Your task to perform on an android device: visit the assistant section in the google photos Image 0: 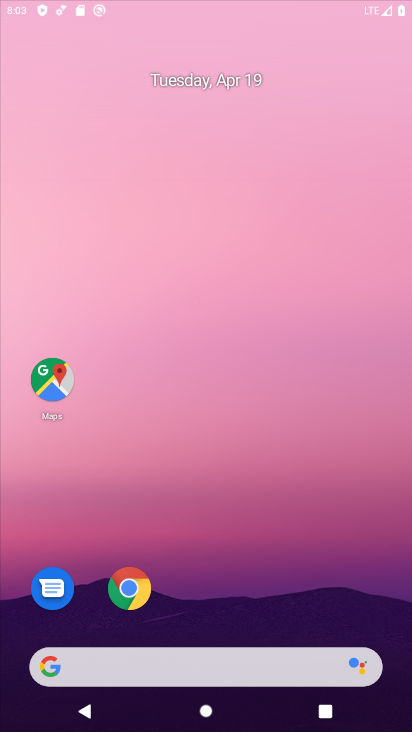
Step 0: drag from (203, 613) to (206, 55)
Your task to perform on an android device: visit the assistant section in the google photos Image 1: 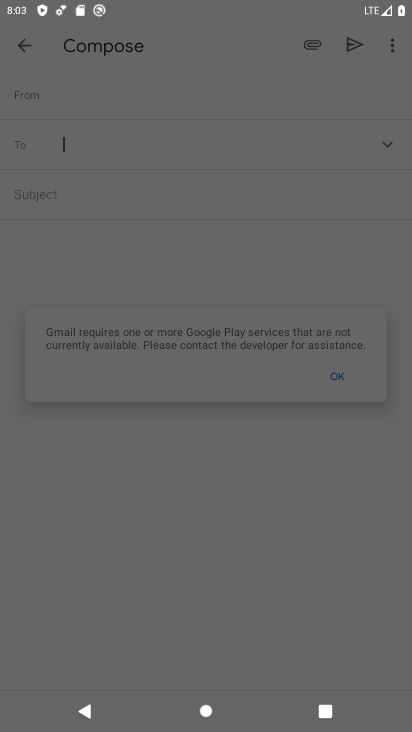
Step 1: press home button
Your task to perform on an android device: visit the assistant section in the google photos Image 2: 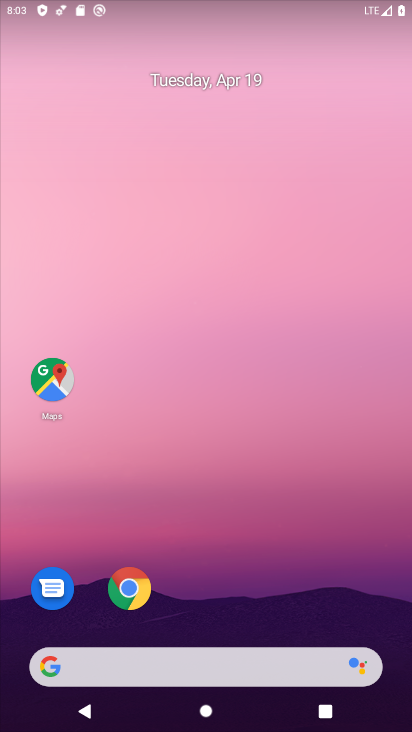
Step 2: drag from (219, 586) to (273, 53)
Your task to perform on an android device: visit the assistant section in the google photos Image 3: 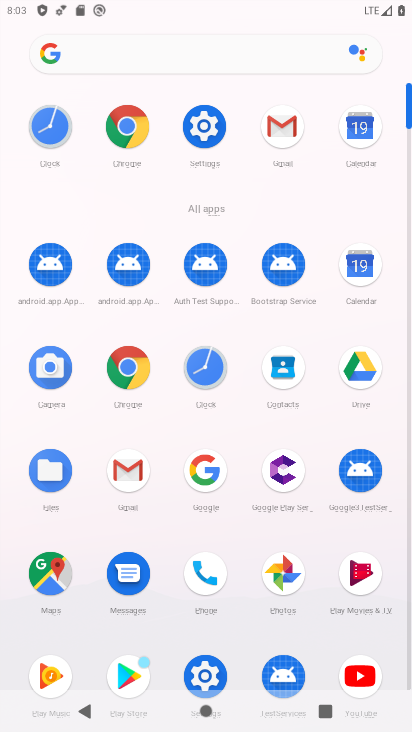
Step 3: click (280, 566)
Your task to perform on an android device: visit the assistant section in the google photos Image 4: 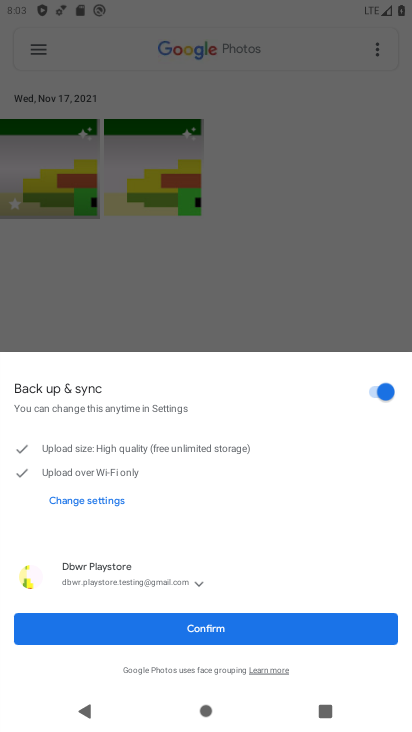
Step 4: click (214, 627)
Your task to perform on an android device: visit the assistant section in the google photos Image 5: 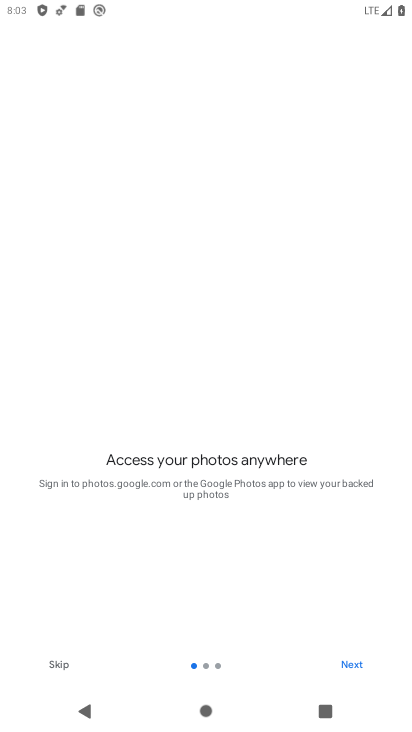
Step 5: click (340, 665)
Your task to perform on an android device: visit the assistant section in the google photos Image 6: 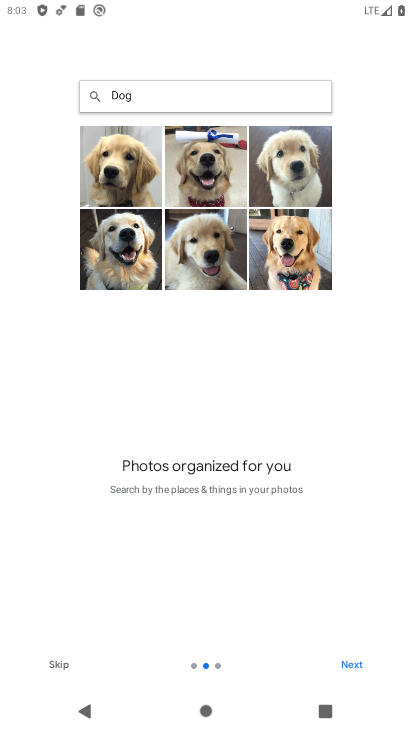
Step 6: click (353, 663)
Your task to perform on an android device: visit the assistant section in the google photos Image 7: 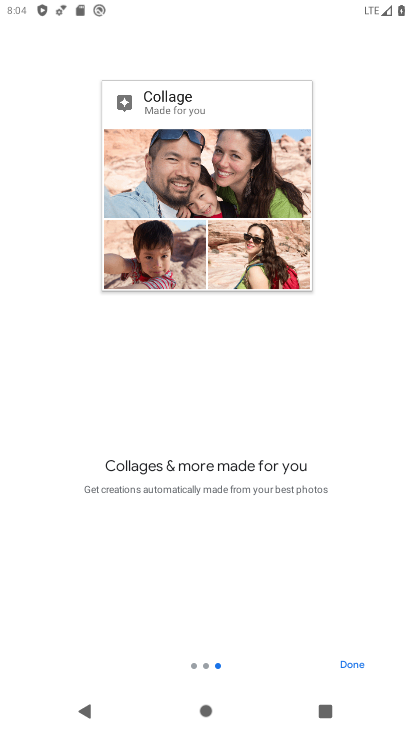
Step 7: click (353, 663)
Your task to perform on an android device: visit the assistant section in the google photos Image 8: 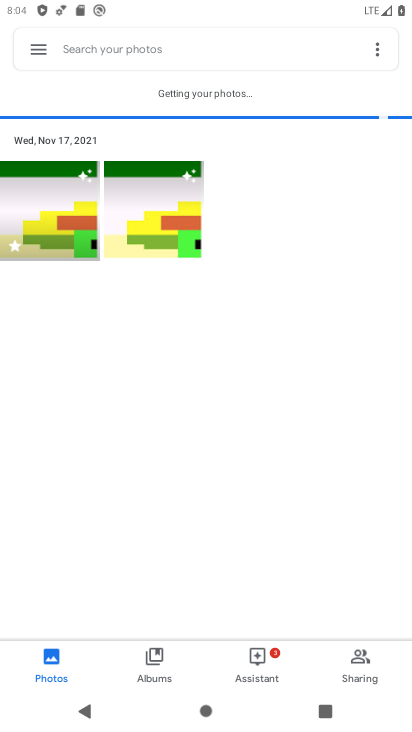
Step 8: click (260, 661)
Your task to perform on an android device: visit the assistant section in the google photos Image 9: 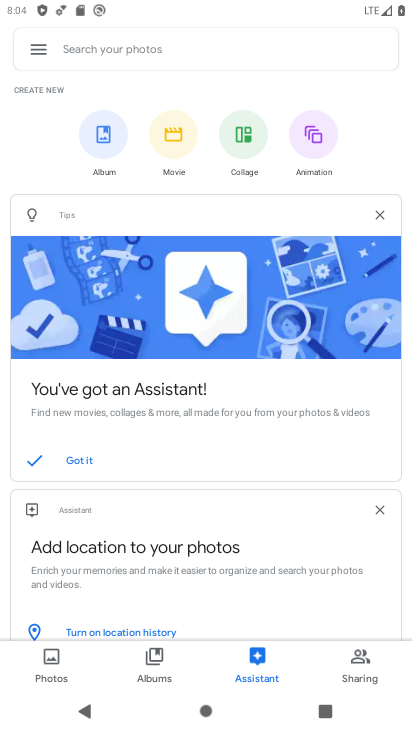
Step 9: task complete